Your task to perform on an android device: toggle javascript in the chrome app Image 0: 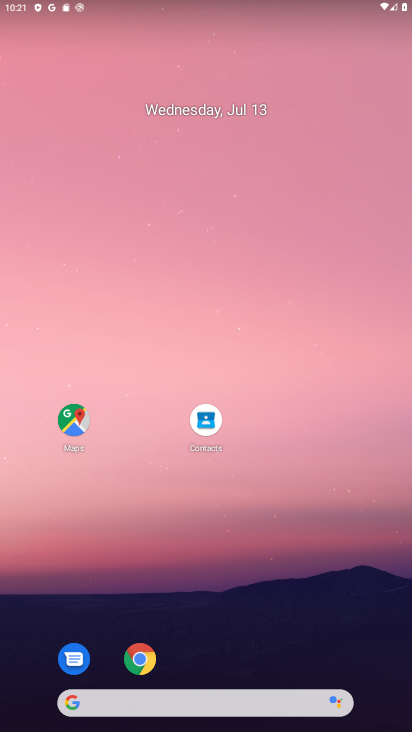
Step 0: click (146, 655)
Your task to perform on an android device: toggle javascript in the chrome app Image 1: 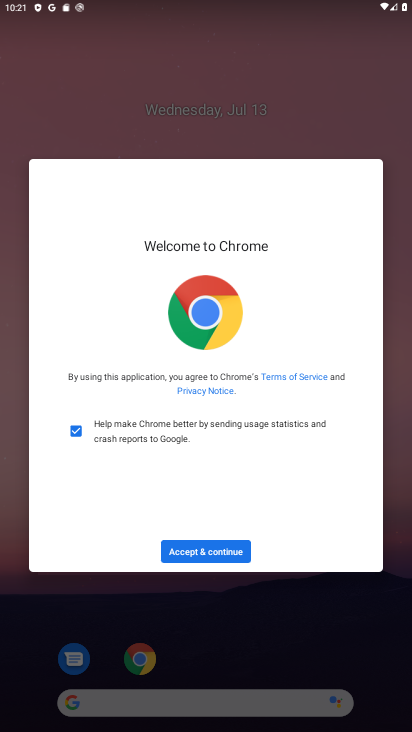
Step 1: click (208, 555)
Your task to perform on an android device: toggle javascript in the chrome app Image 2: 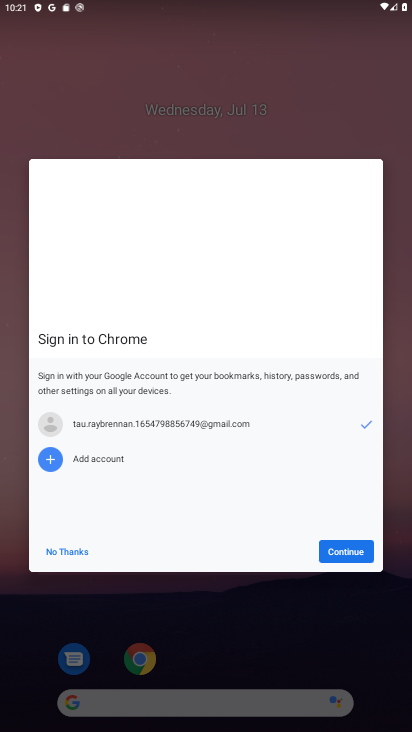
Step 2: click (332, 555)
Your task to perform on an android device: toggle javascript in the chrome app Image 3: 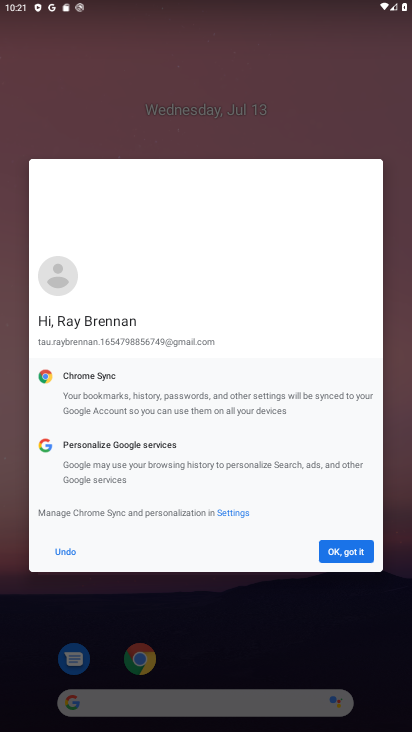
Step 3: click (361, 544)
Your task to perform on an android device: toggle javascript in the chrome app Image 4: 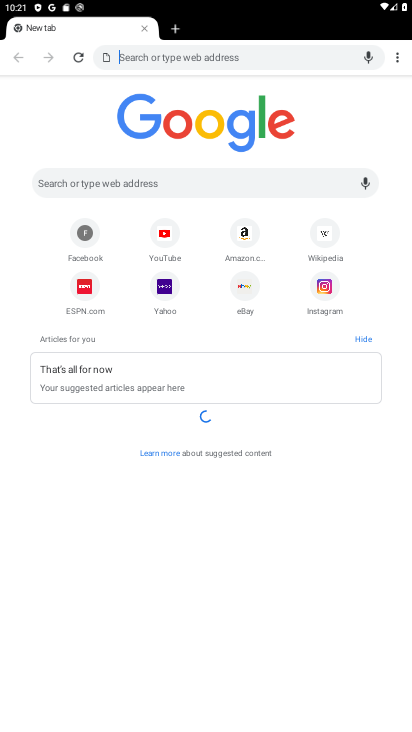
Step 4: click (401, 56)
Your task to perform on an android device: toggle javascript in the chrome app Image 5: 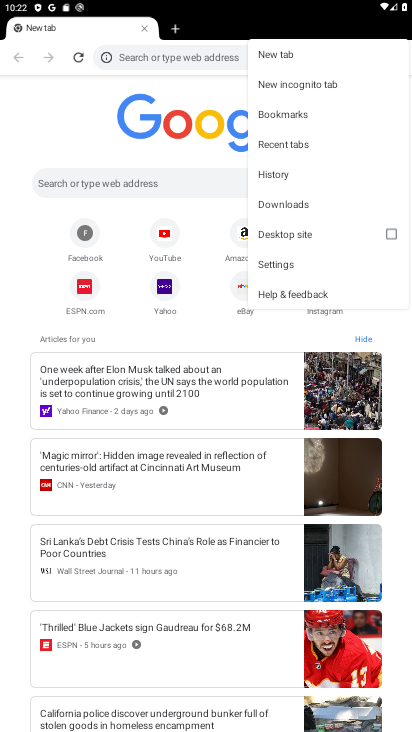
Step 5: click (289, 263)
Your task to perform on an android device: toggle javascript in the chrome app Image 6: 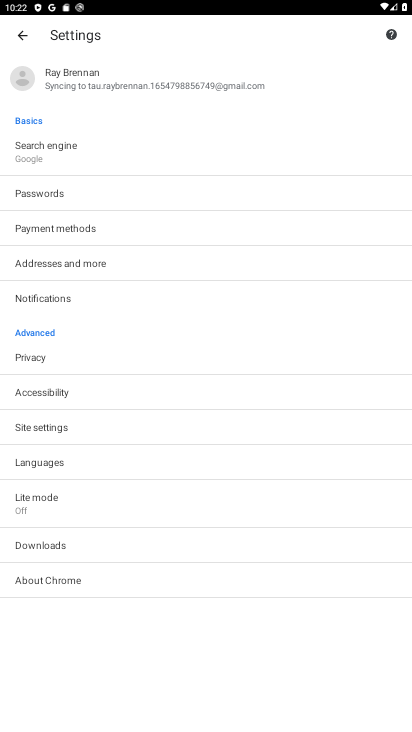
Step 6: click (81, 433)
Your task to perform on an android device: toggle javascript in the chrome app Image 7: 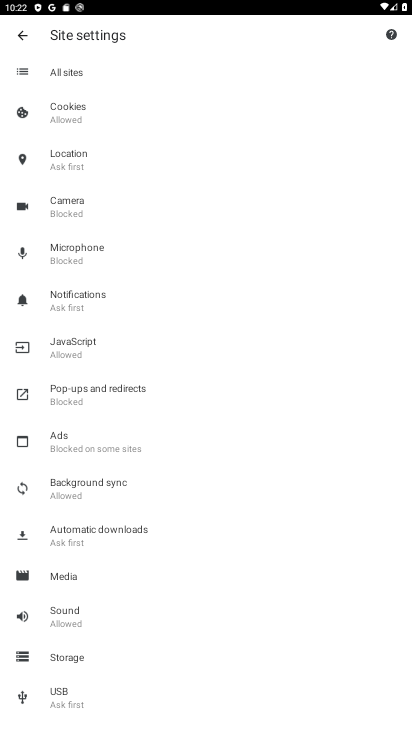
Step 7: click (149, 349)
Your task to perform on an android device: toggle javascript in the chrome app Image 8: 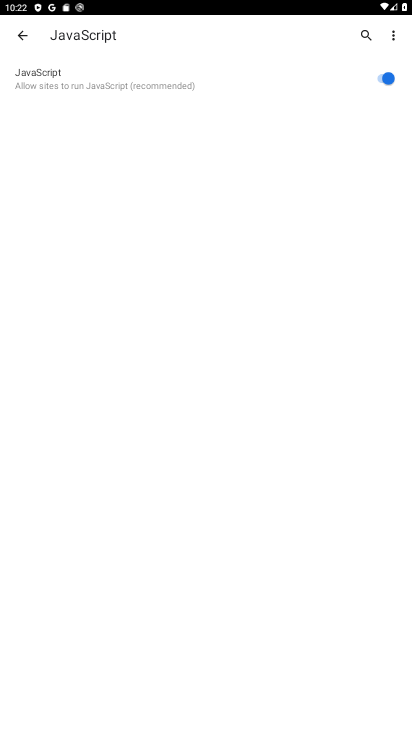
Step 8: click (386, 80)
Your task to perform on an android device: toggle javascript in the chrome app Image 9: 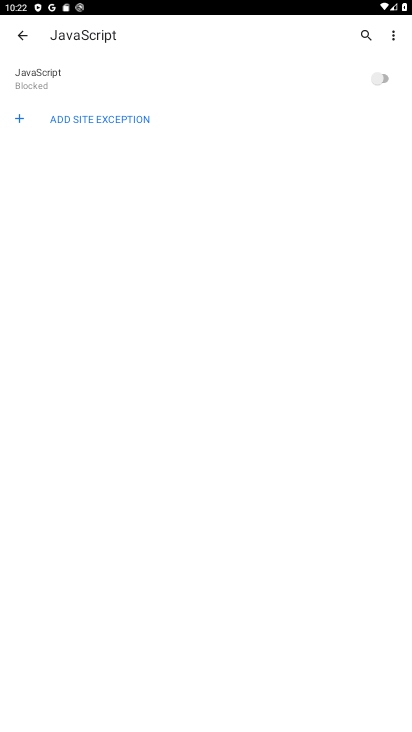
Step 9: task complete